Your task to perform on an android device: change notifications settings Image 0: 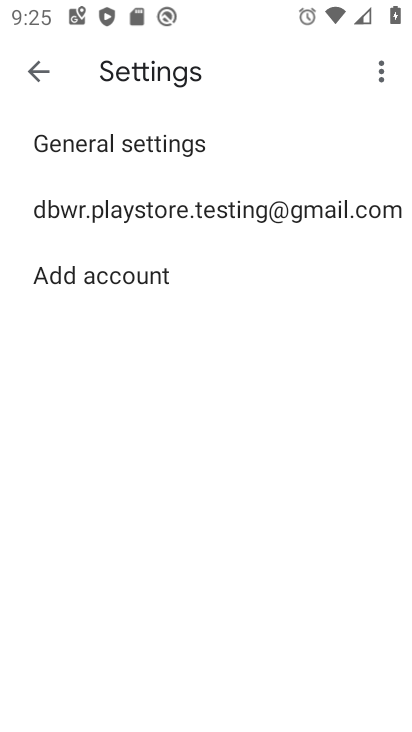
Step 0: press home button
Your task to perform on an android device: change notifications settings Image 1: 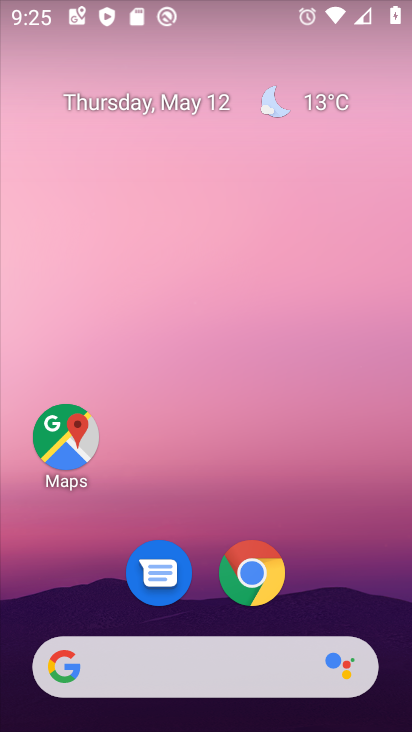
Step 1: drag from (403, 677) to (273, 298)
Your task to perform on an android device: change notifications settings Image 2: 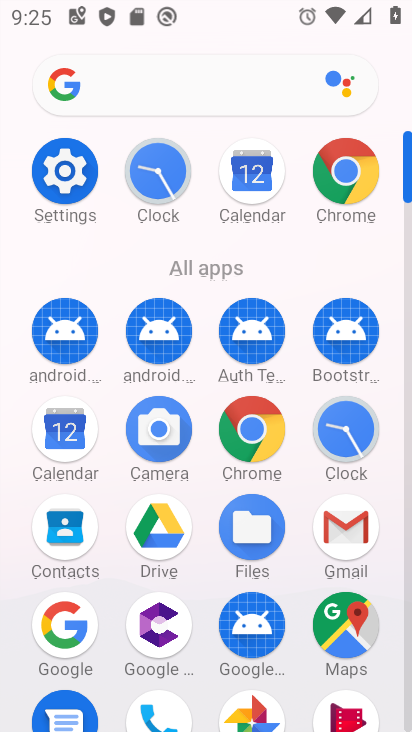
Step 2: click (79, 165)
Your task to perform on an android device: change notifications settings Image 3: 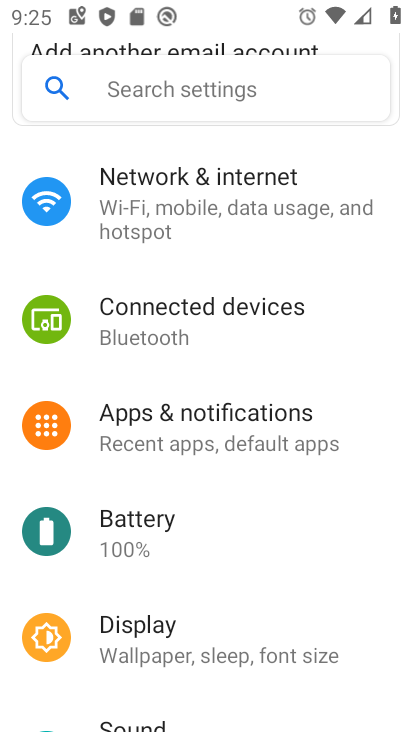
Step 3: click (182, 429)
Your task to perform on an android device: change notifications settings Image 4: 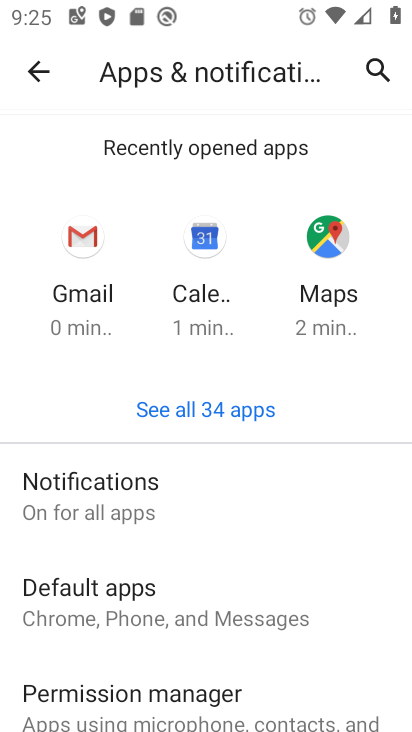
Step 4: click (101, 495)
Your task to perform on an android device: change notifications settings Image 5: 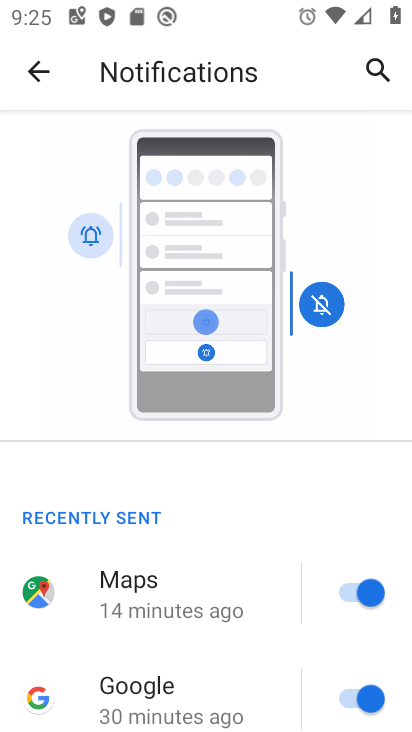
Step 5: click (351, 592)
Your task to perform on an android device: change notifications settings Image 6: 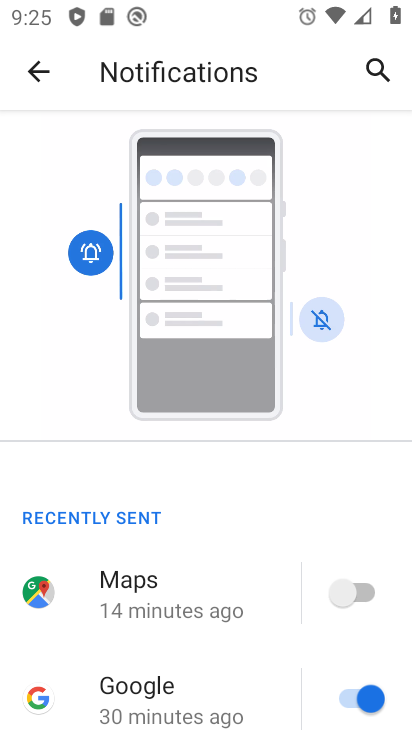
Step 6: drag from (257, 690) to (198, 369)
Your task to perform on an android device: change notifications settings Image 7: 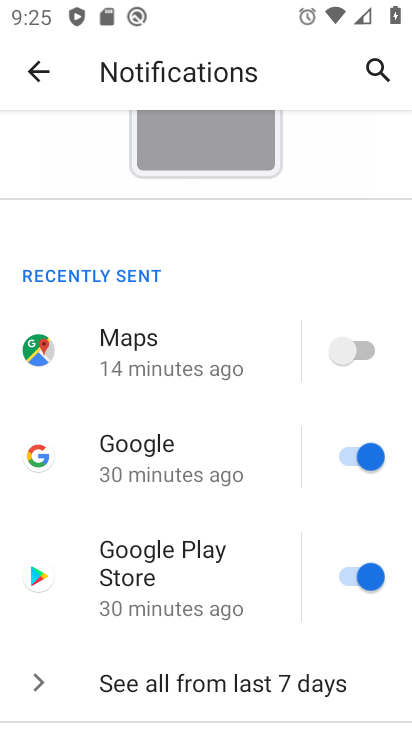
Step 7: click (342, 413)
Your task to perform on an android device: change notifications settings Image 8: 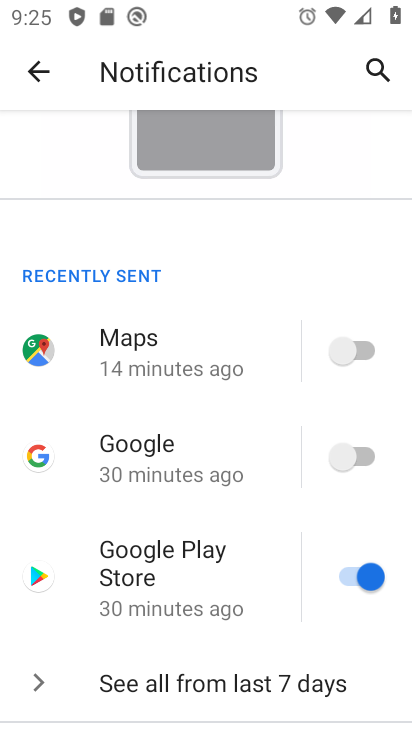
Step 8: click (359, 582)
Your task to perform on an android device: change notifications settings Image 9: 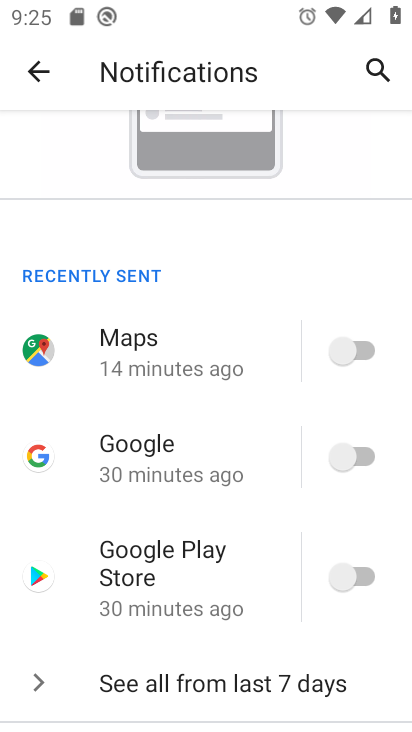
Step 9: task complete